Your task to perform on an android device: turn off picture-in-picture Image 0: 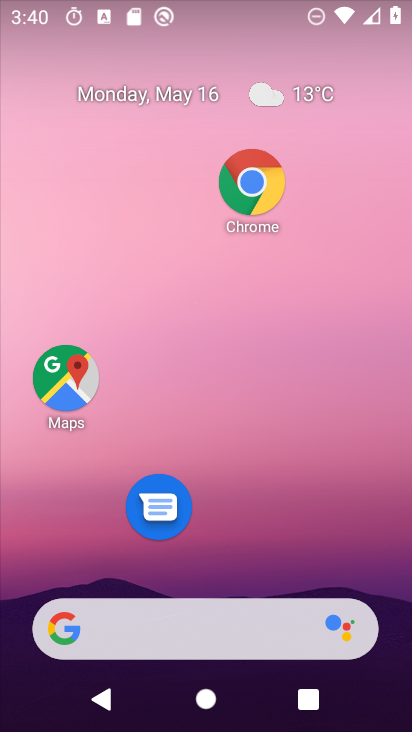
Step 0: drag from (234, 542) to (199, 88)
Your task to perform on an android device: turn off picture-in-picture Image 1: 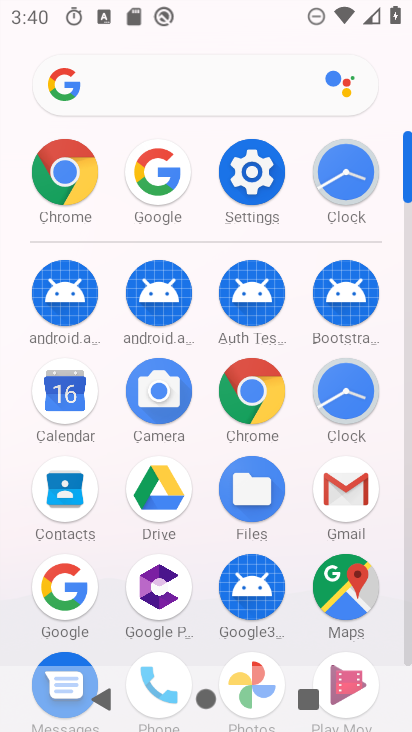
Step 1: drag from (202, 254) to (203, 134)
Your task to perform on an android device: turn off picture-in-picture Image 2: 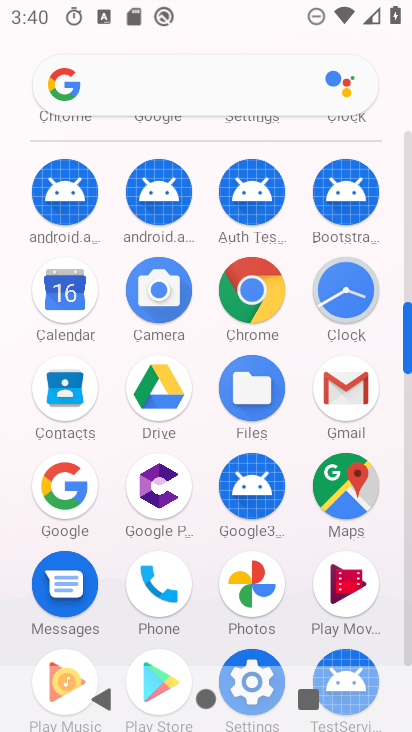
Step 2: click (255, 656)
Your task to perform on an android device: turn off picture-in-picture Image 3: 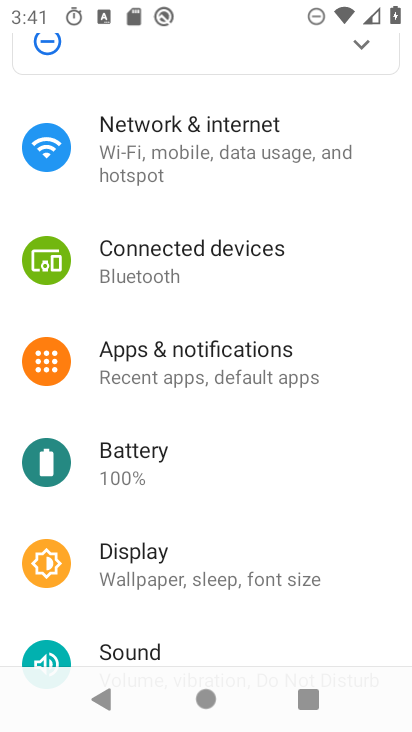
Step 3: click (231, 376)
Your task to perform on an android device: turn off picture-in-picture Image 4: 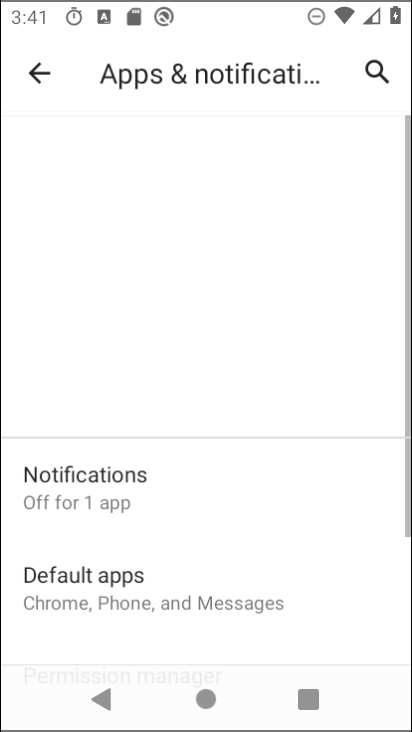
Step 4: drag from (227, 511) to (253, 120)
Your task to perform on an android device: turn off picture-in-picture Image 5: 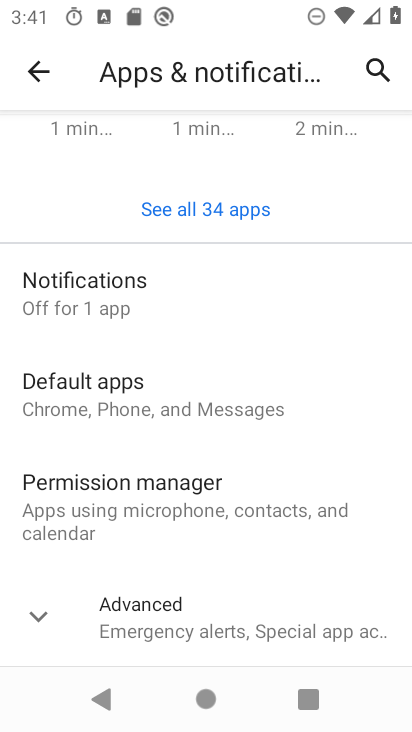
Step 5: click (183, 640)
Your task to perform on an android device: turn off picture-in-picture Image 6: 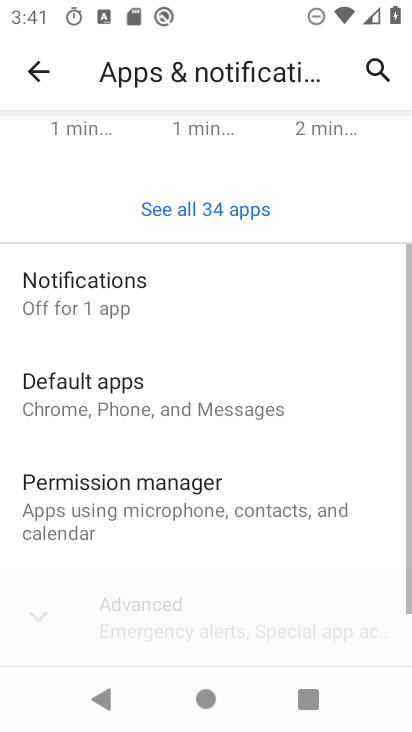
Step 6: drag from (181, 567) to (237, 237)
Your task to perform on an android device: turn off picture-in-picture Image 7: 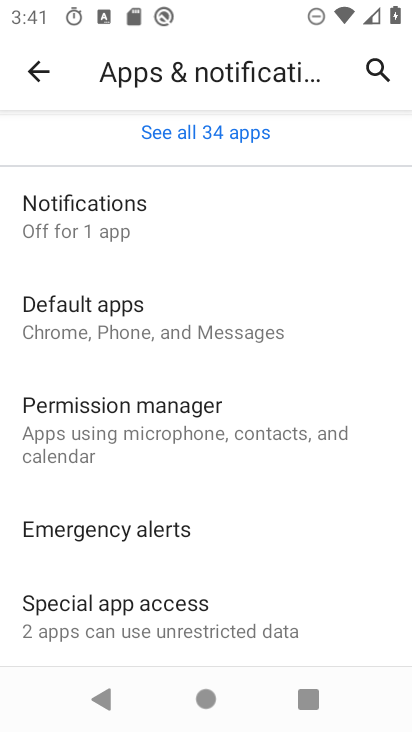
Step 7: click (218, 622)
Your task to perform on an android device: turn off picture-in-picture Image 8: 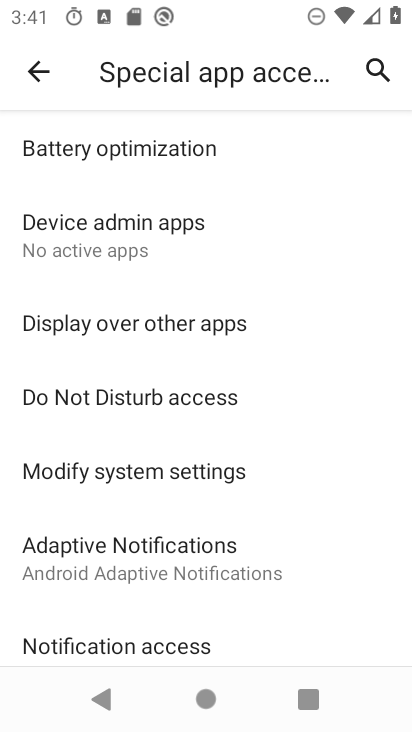
Step 8: drag from (221, 640) to (257, 298)
Your task to perform on an android device: turn off picture-in-picture Image 9: 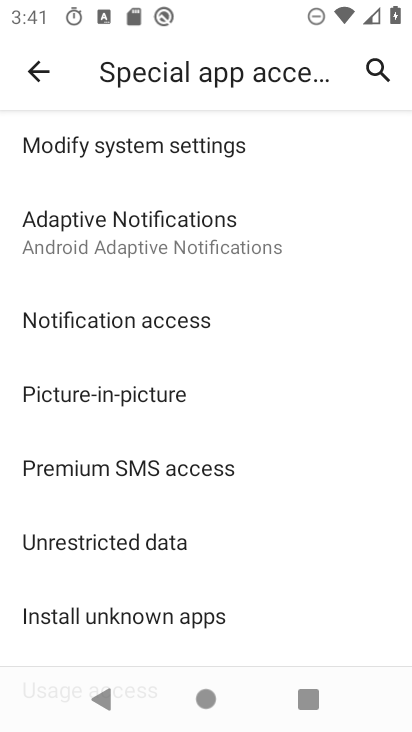
Step 9: click (188, 406)
Your task to perform on an android device: turn off picture-in-picture Image 10: 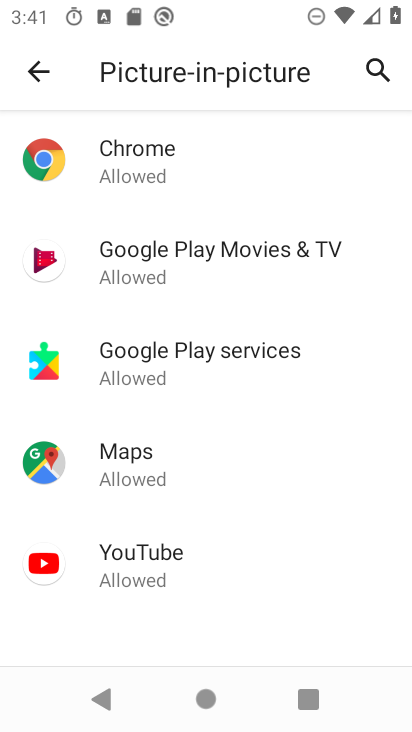
Step 10: click (252, 190)
Your task to perform on an android device: turn off picture-in-picture Image 11: 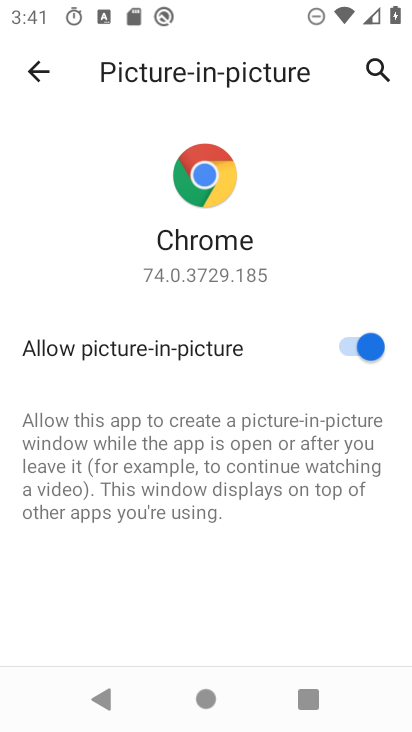
Step 11: click (361, 353)
Your task to perform on an android device: turn off picture-in-picture Image 12: 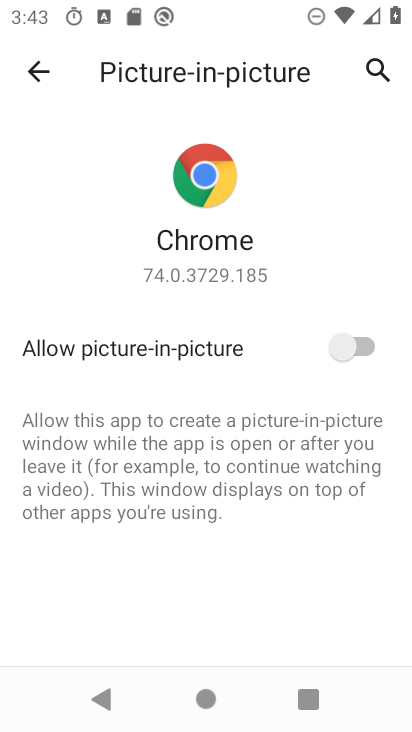
Step 12: task complete